Your task to perform on an android device: Empty the shopping cart on newegg. Add lenovo thinkpad to the cart on newegg, then select checkout. Image 0: 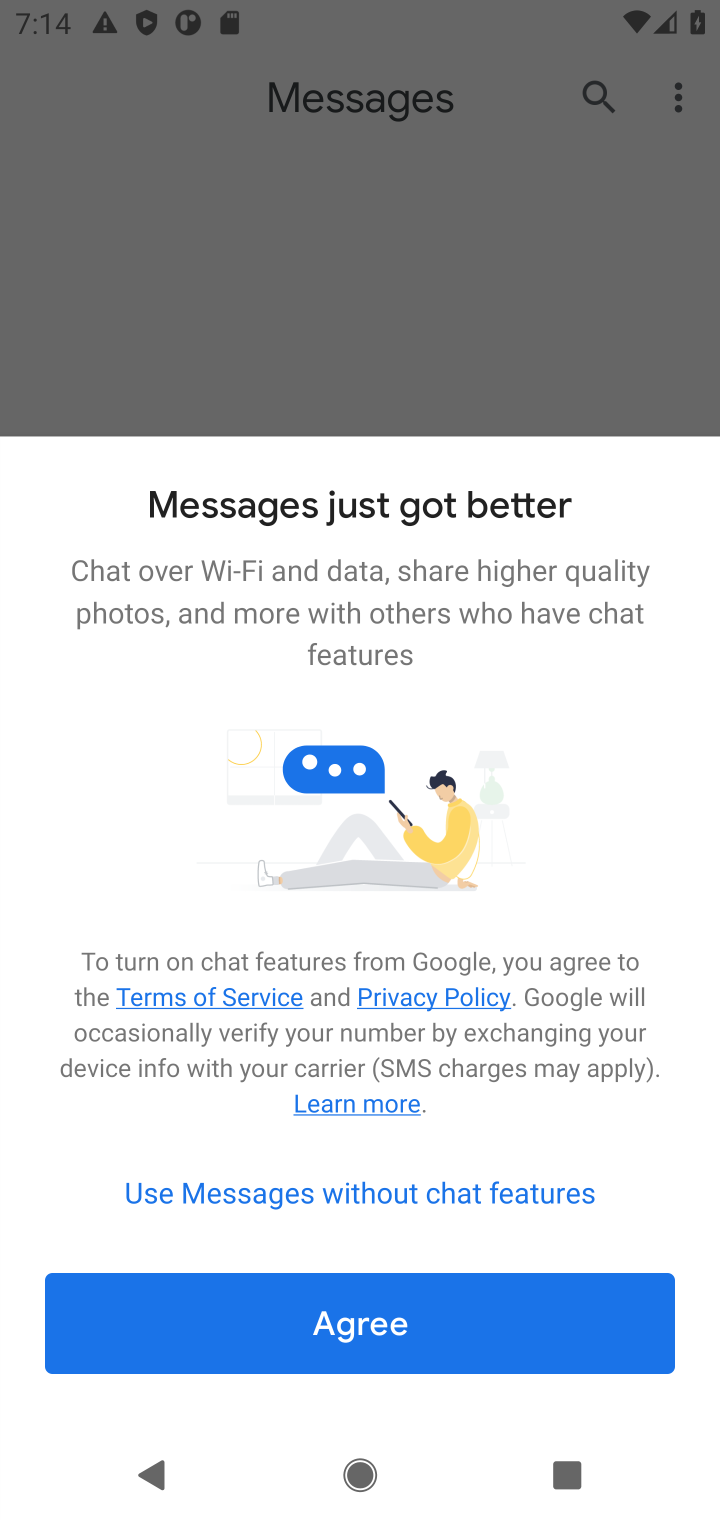
Step 0: press home button
Your task to perform on an android device: Empty the shopping cart on newegg. Add lenovo thinkpad to the cart on newegg, then select checkout. Image 1: 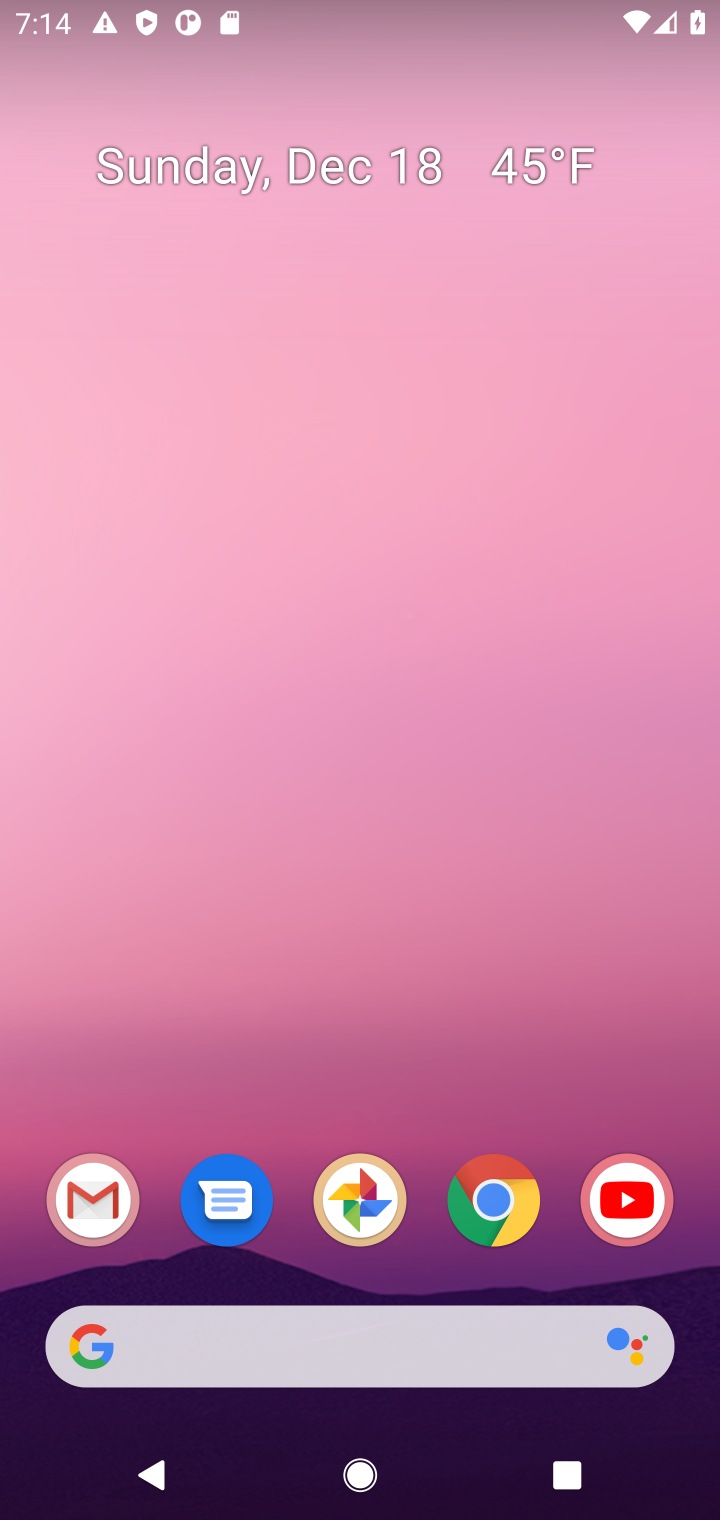
Step 1: click (481, 1206)
Your task to perform on an android device: Empty the shopping cart on newegg. Add lenovo thinkpad to the cart on newegg, then select checkout. Image 2: 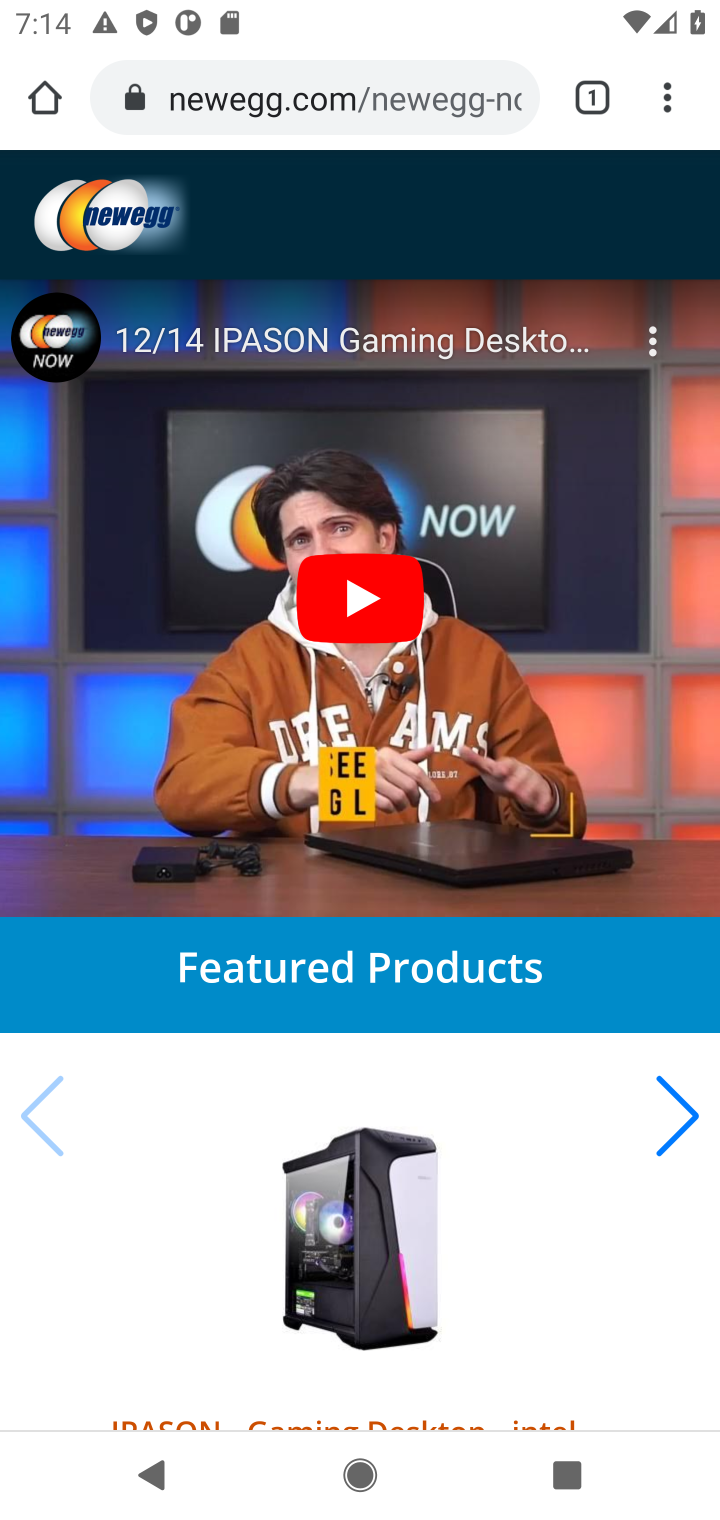
Step 2: click (376, 106)
Your task to perform on an android device: Empty the shopping cart on newegg. Add lenovo thinkpad to the cart on newegg, then select checkout. Image 3: 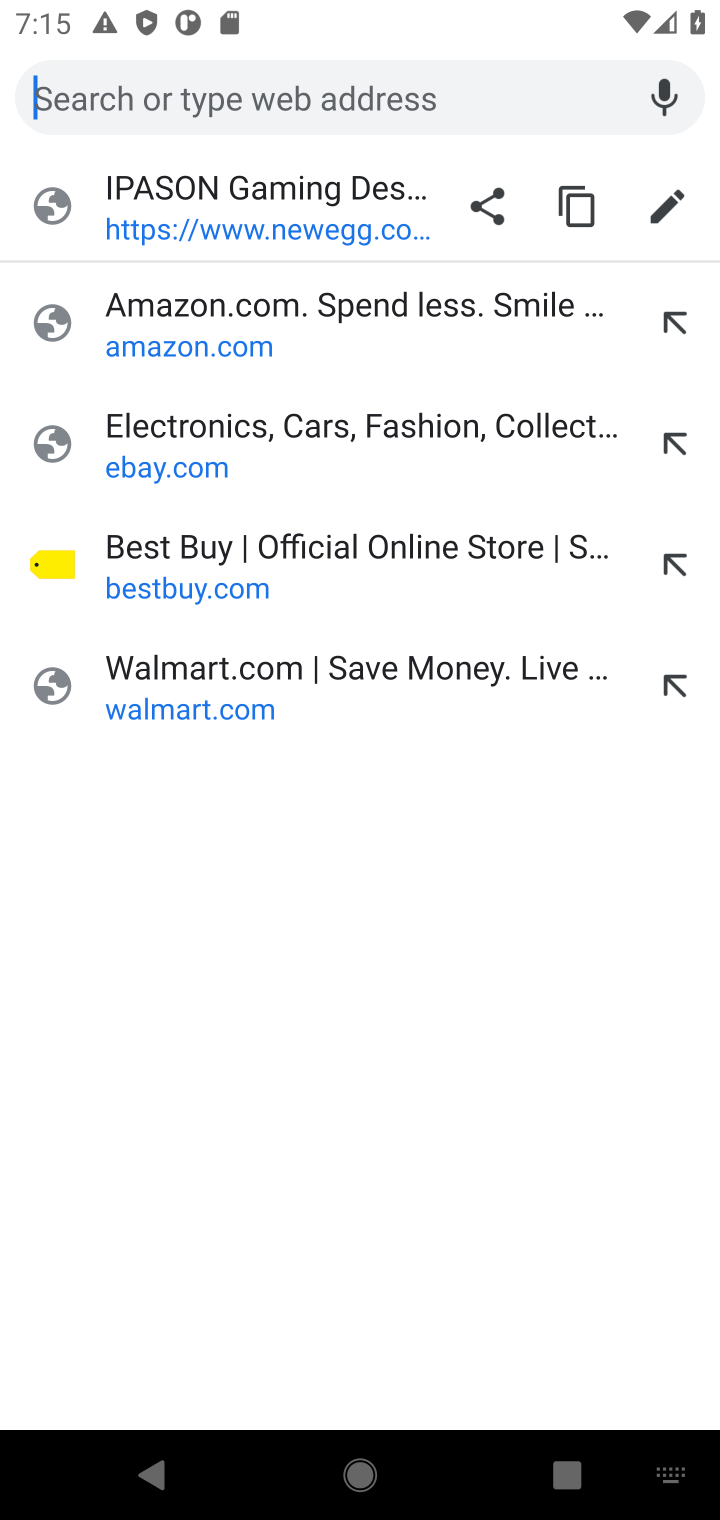
Step 3: type "newegg.com"
Your task to perform on an android device: Empty the shopping cart on newegg. Add lenovo thinkpad to the cart on newegg, then select checkout. Image 4: 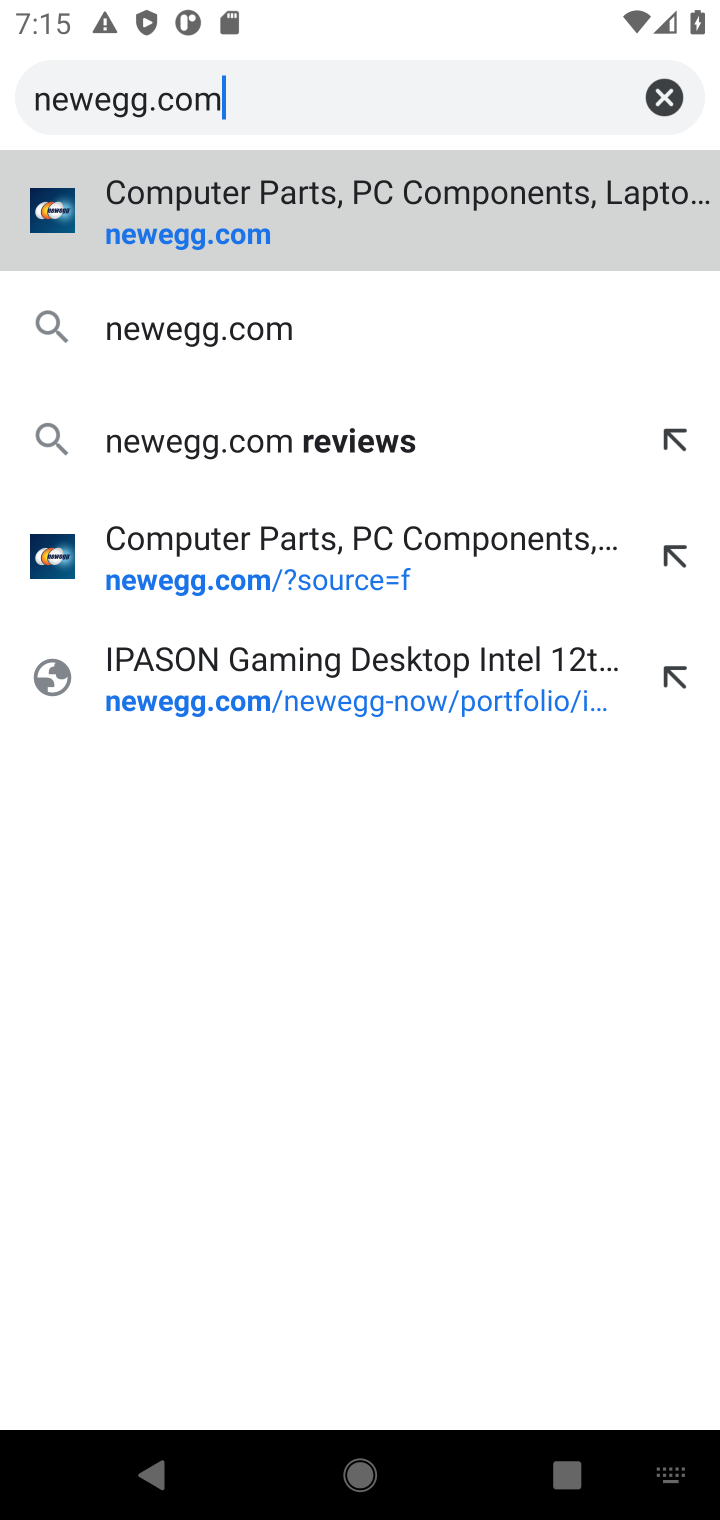
Step 4: click (173, 222)
Your task to perform on an android device: Empty the shopping cart on newegg. Add lenovo thinkpad to the cart on newegg, then select checkout. Image 5: 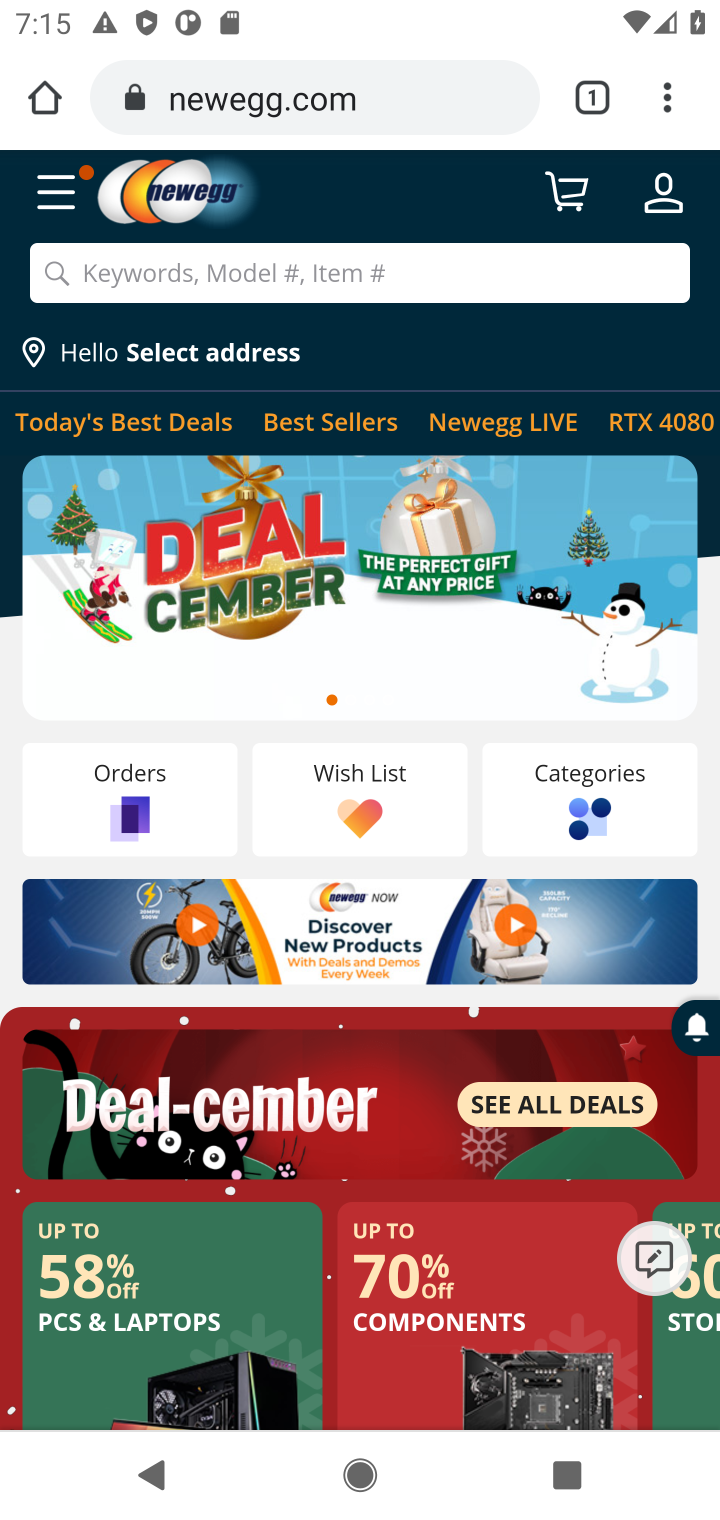
Step 5: click (560, 199)
Your task to perform on an android device: Empty the shopping cart on newegg. Add lenovo thinkpad to the cart on newegg, then select checkout. Image 6: 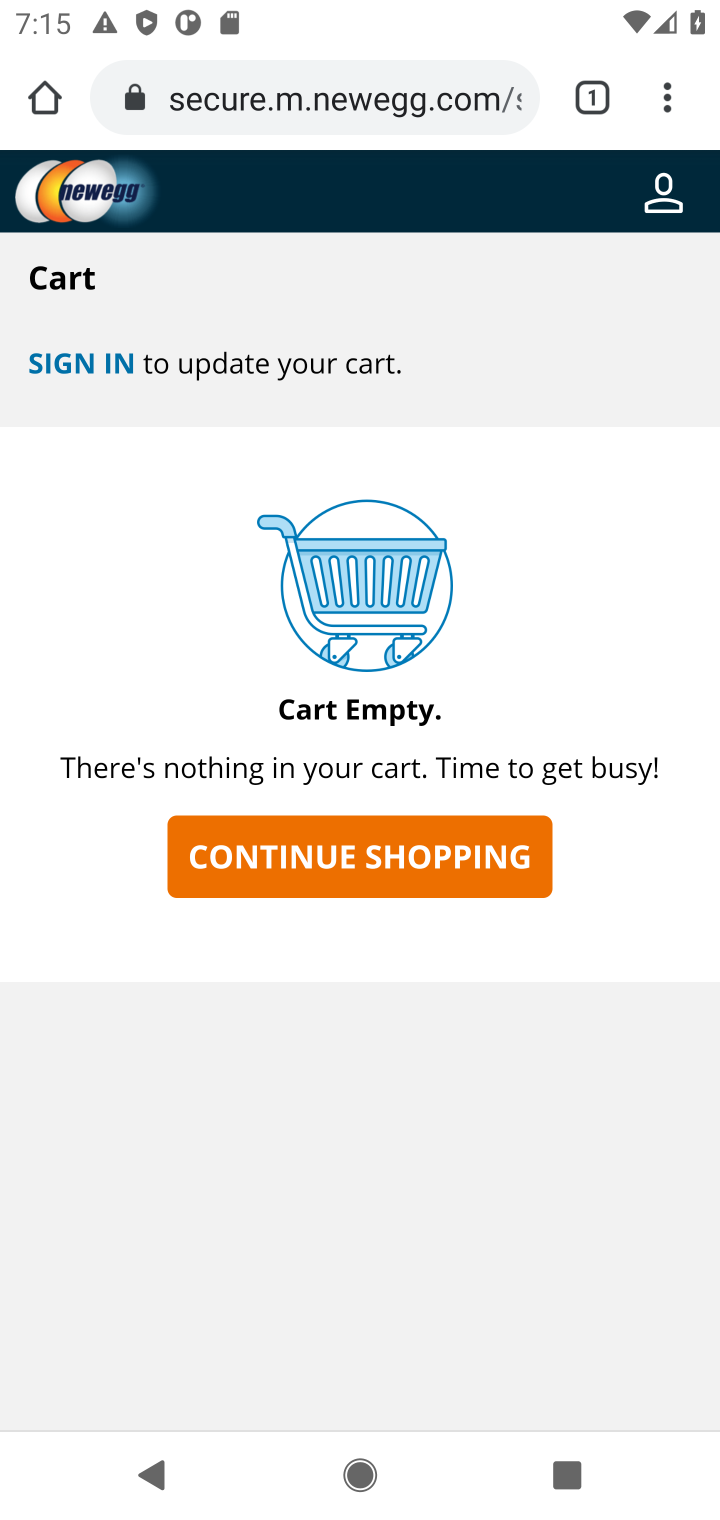
Step 6: click (274, 855)
Your task to perform on an android device: Empty the shopping cart on newegg. Add lenovo thinkpad to the cart on newegg, then select checkout. Image 7: 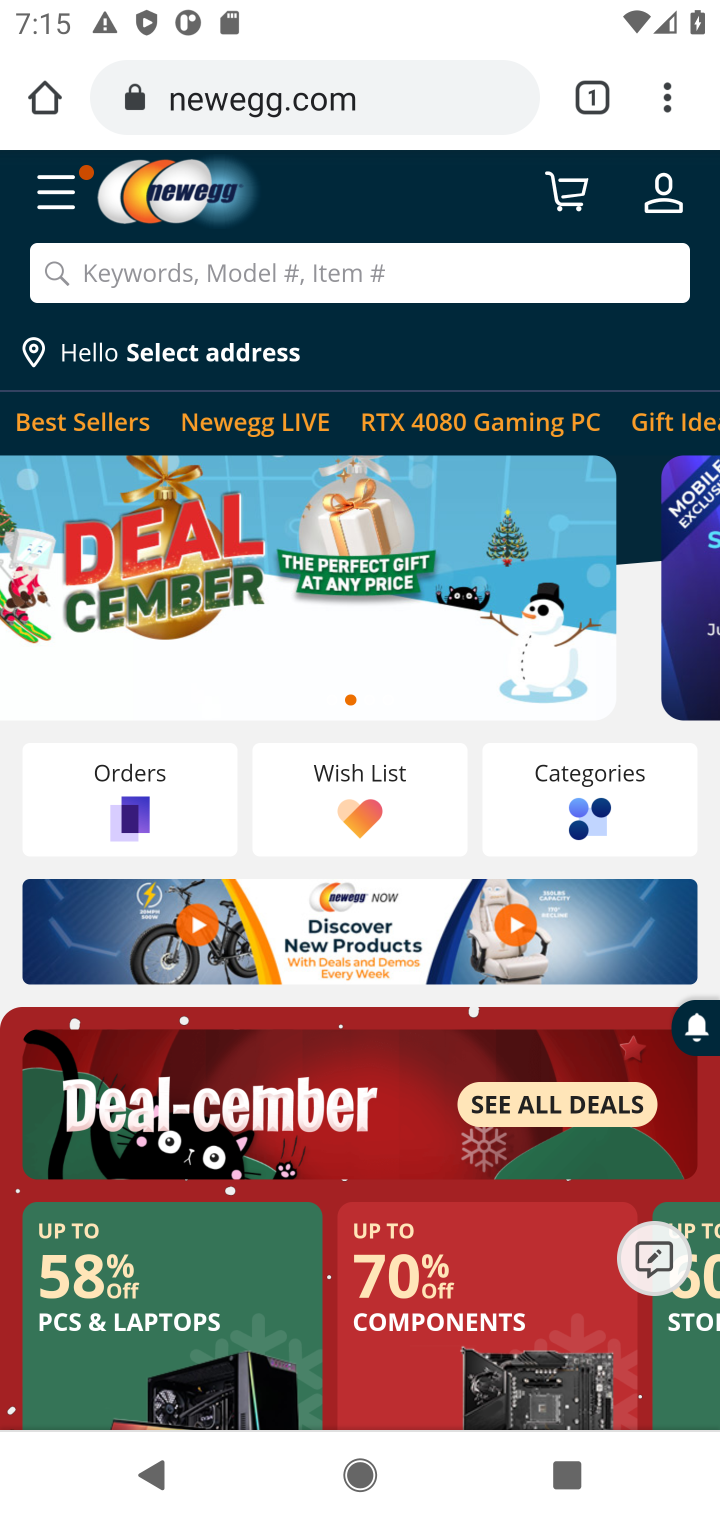
Step 7: click (273, 270)
Your task to perform on an android device: Empty the shopping cart on newegg. Add lenovo thinkpad to the cart on newegg, then select checkout. Image 8: 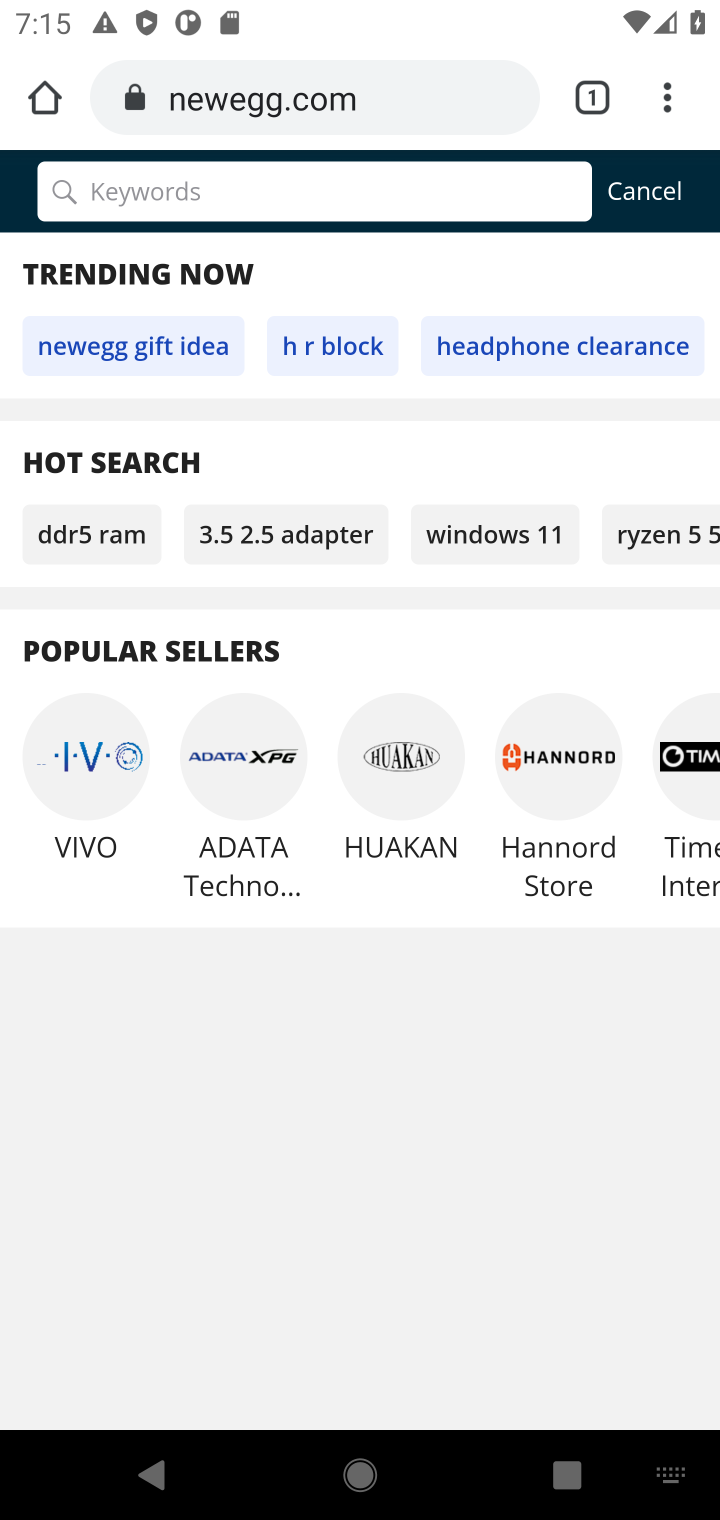
Step 8: type "lenovo thinkpad"
Your task to perform on an android device: Empty the shopping cart on newegg. Add lenovo thinkpad to the cart on newegg, then select checkout. Image 9: 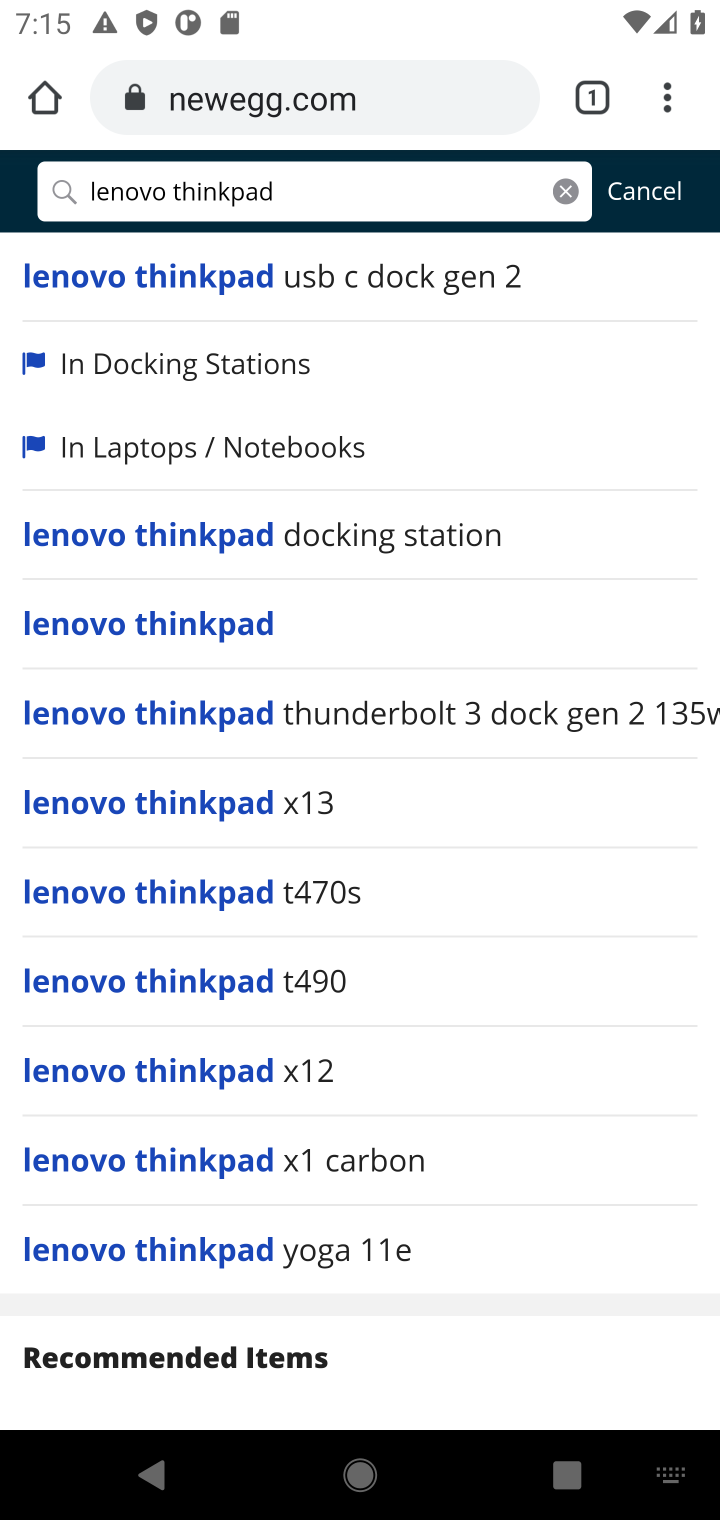
Step 9: click (186, 632)
Your task to perform on an android device: Empty the shopping cart on newegg. Add lenovo thinkpad to the cart on newegg, then select checkout. Image 10: 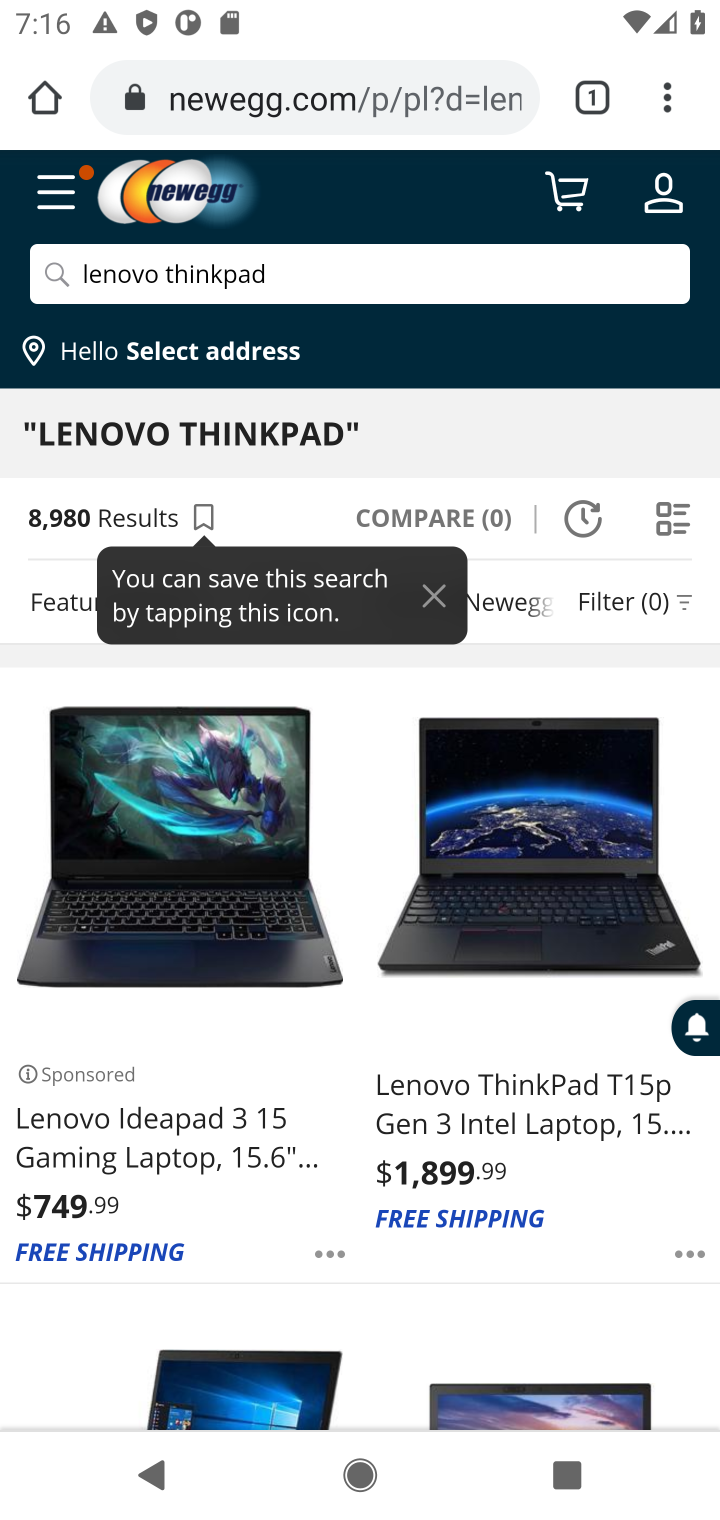
Step 10: click (534, 1099)
Your task to perform on an android device: Empty the shopping cart on newegg. Add lenovo thinkpad to the cart on newegg, then select checkout. Image 11: 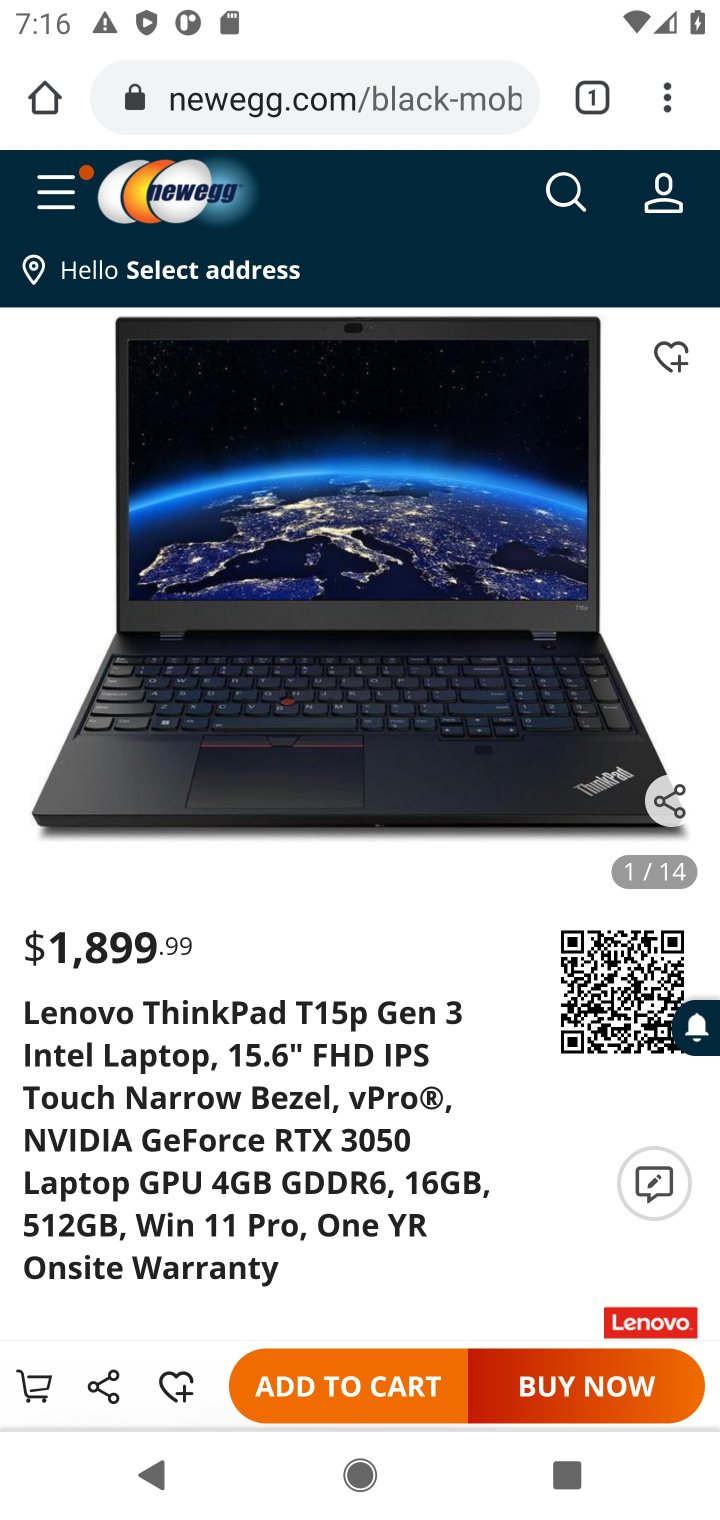
Step 11: click (336, 1384)
Your task to perform on an android device: Empty the shopping cart on newegg. Add lenovo thinkpad to the cart on newegg, then select checkout. Image 12: 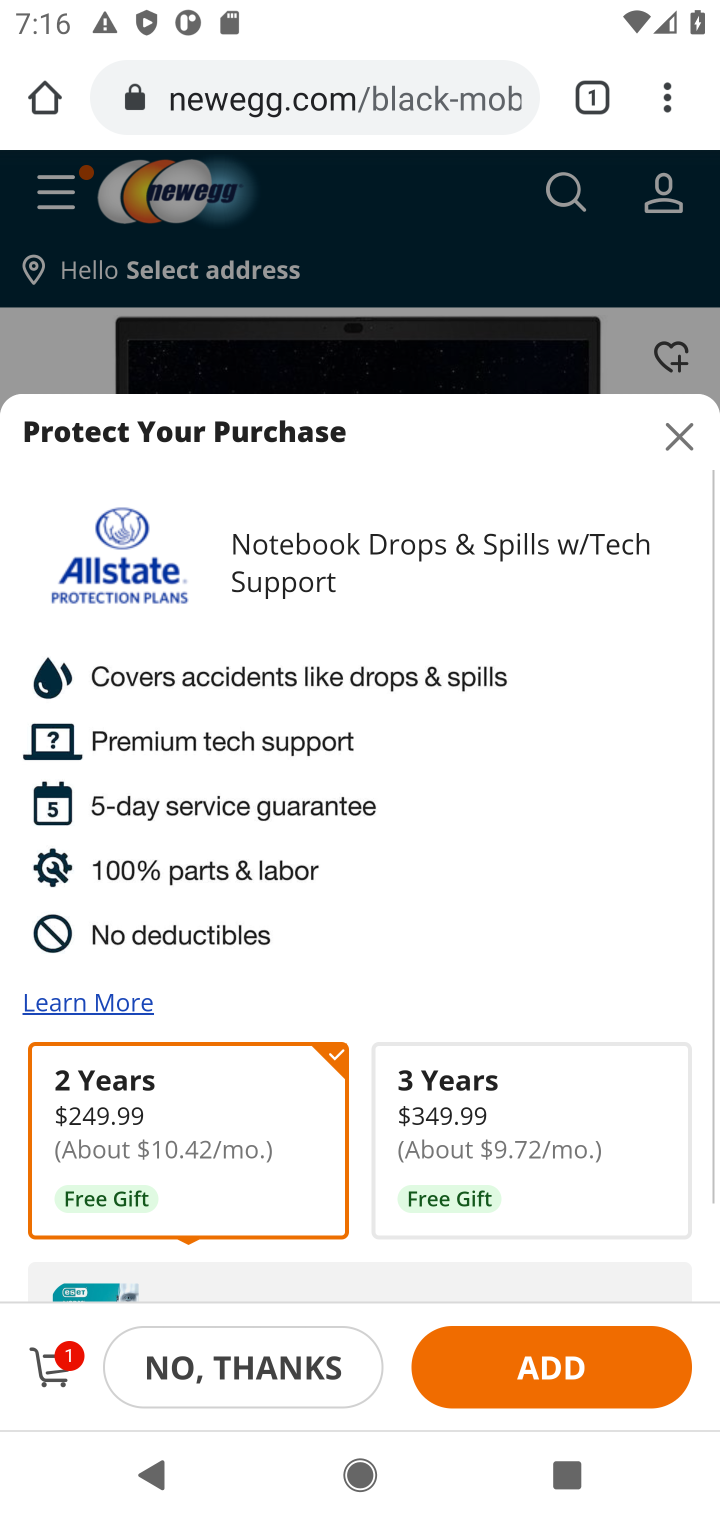
Step 12: click (58, 1359)
Your task to perform on an android device: Empty the shopping cart on newegg. Add lenovo thinkpad to the cart on newegg, then select checkout. Image 13: 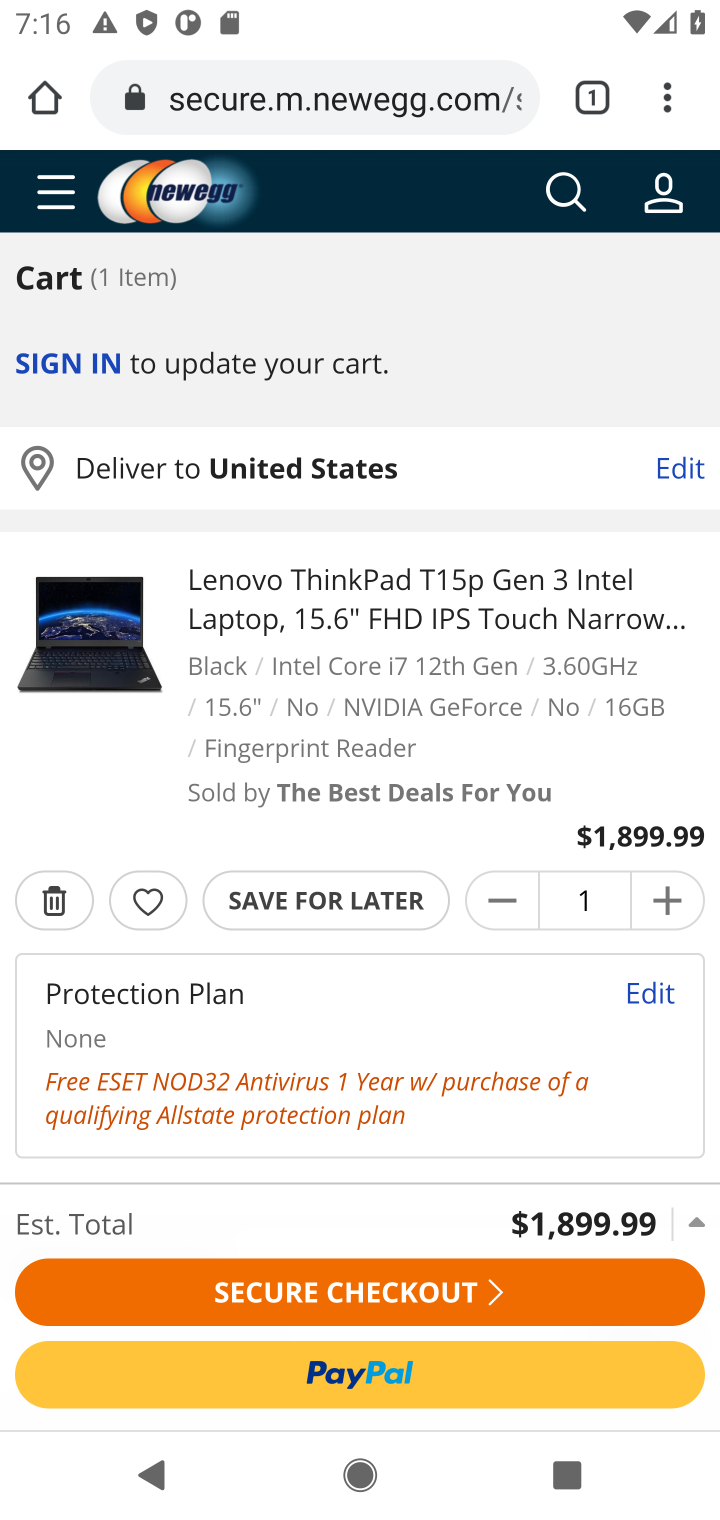
Step 13: click (210, 1365)
Your task to perform on an android device: Empty the shopping cart on newegg. Add lenovo thinkpad to the cart on newegg, then select checkout. Image 14: 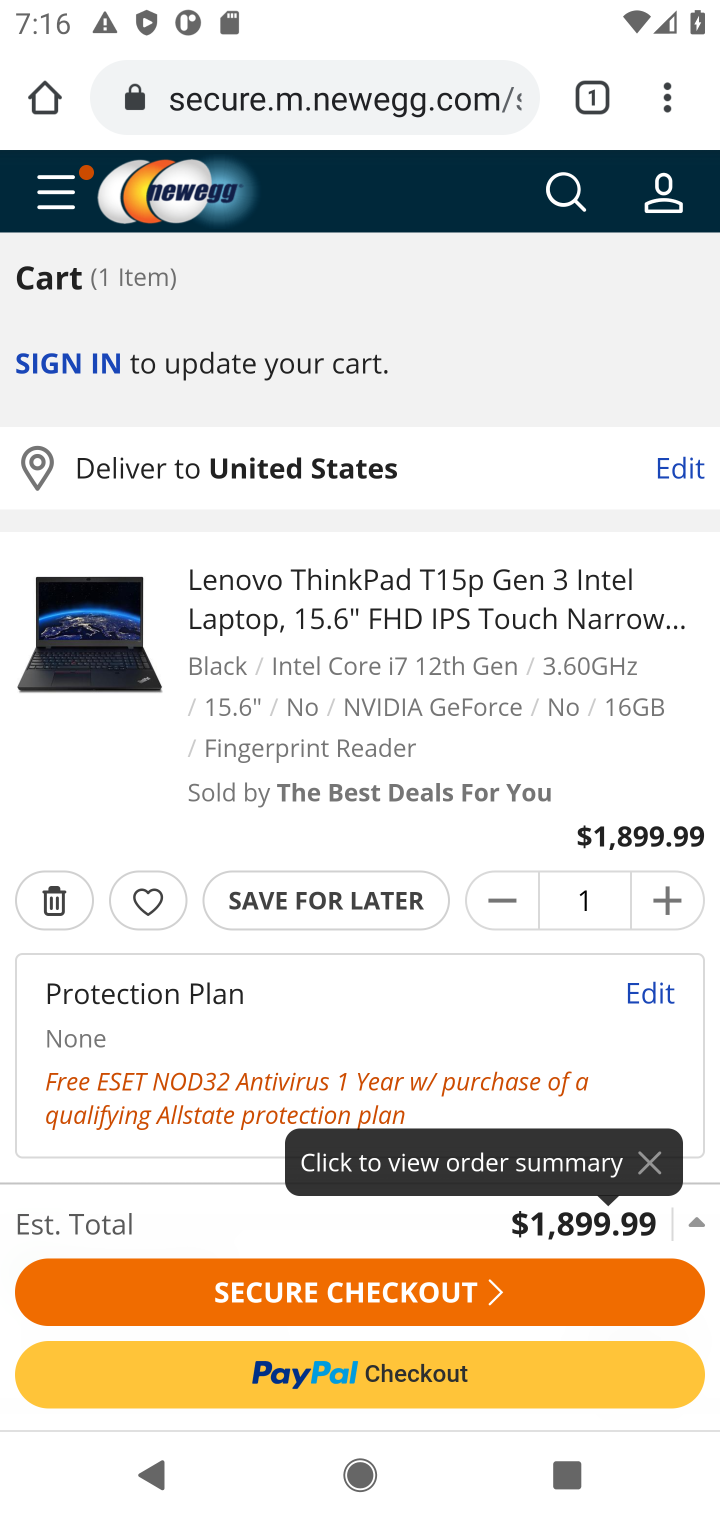
Step 14: click (262, 1291)
Your task to perform on an android device: Empty the shopping cart on newegg. Add lenovo thinkpad to the cart on newegg, then select checkout. Image 15: 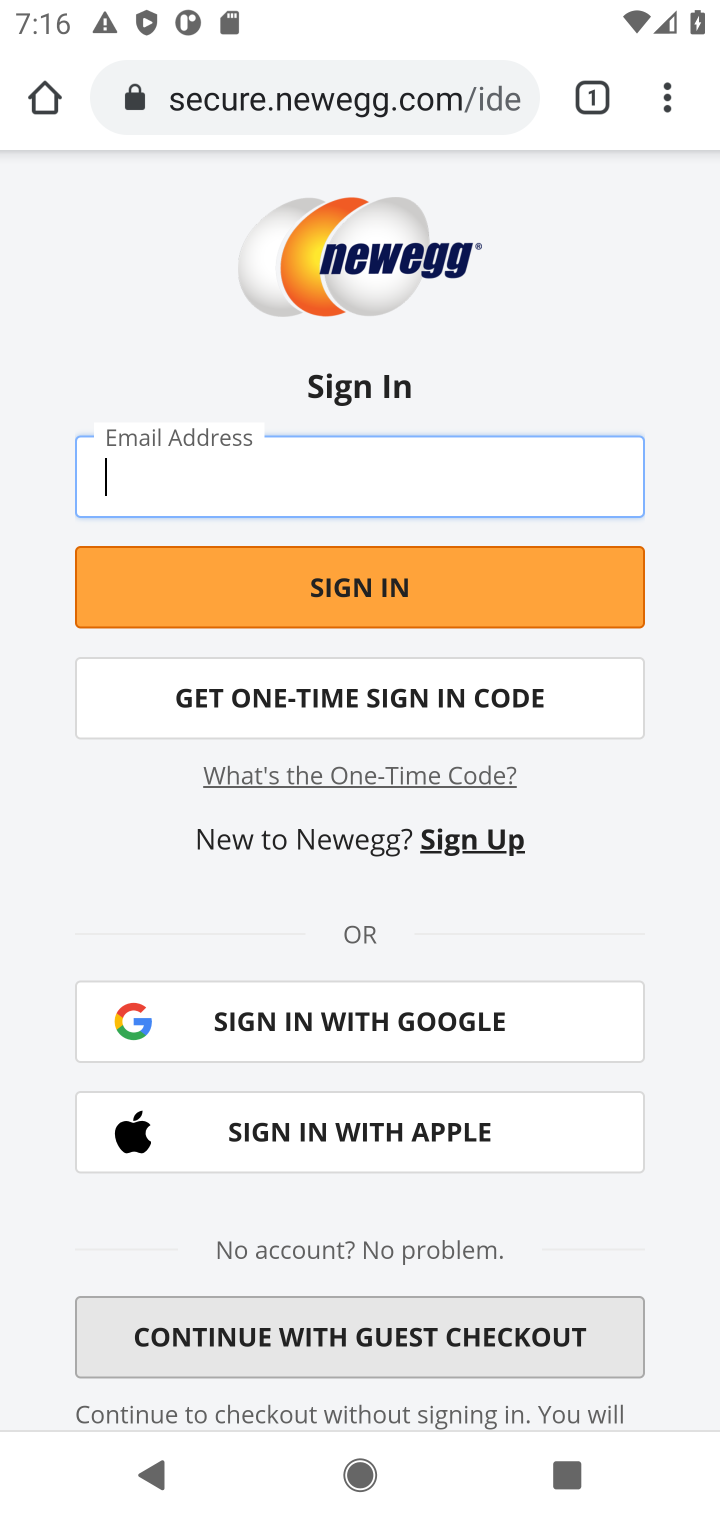
Step 15: task complete